Your task to perform on an android device: allow cookies in the chrome app Image 0: 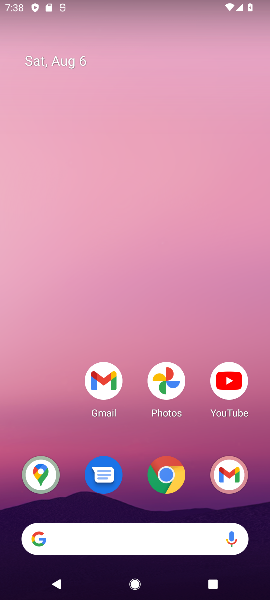
Step 0: click (155, 488)
Your task to perform on an android device: allow cookies in the chrome app Image 1: 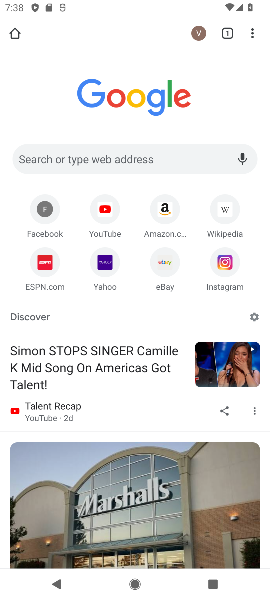
Step 1: click (251, 32)
Your task to perform on an android device: allow cookies in the chrome app Image 2: 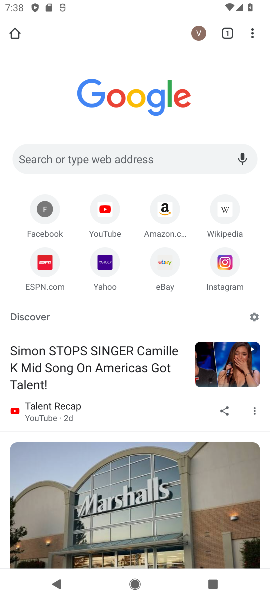
Step 2: click (251, 32)
Your task to perform on an android device: allow cookies in the chrome app Image 3: 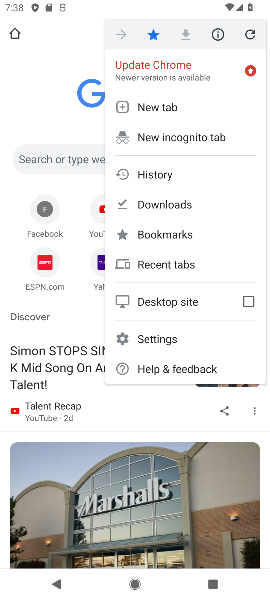
Step 3: click (167, 344)
Your task to perform on an android device: allow cookies in the chrome app Image 4: 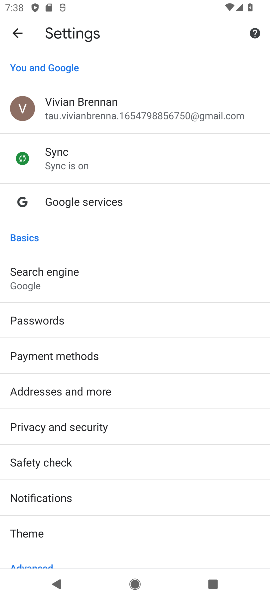
Step 4: drag from (88, 485) to (106, 116)
Your task to perform on an android device: allow cookies in the chrome app Image 5: 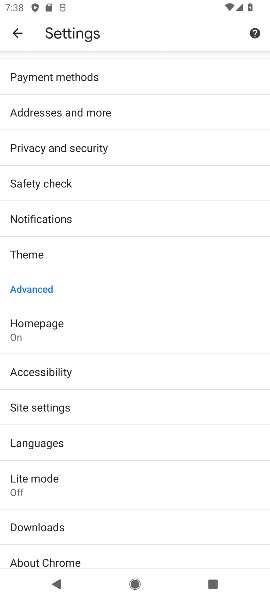
Step 5: click (76, 407)
Your task to perform on an android device: allow cookies in the chrome app Image 6: 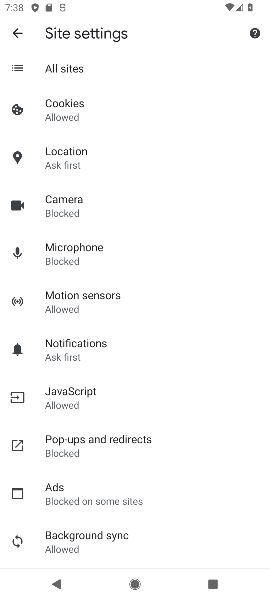
Step 6: click (50, 112)
Your task to perform on an android device: allow cookies in the chrome app Image 7: 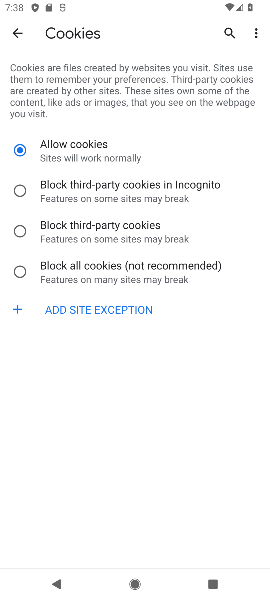
Step 7: task complete